Your task to perform on an android device: turn notification dots off Image 0: 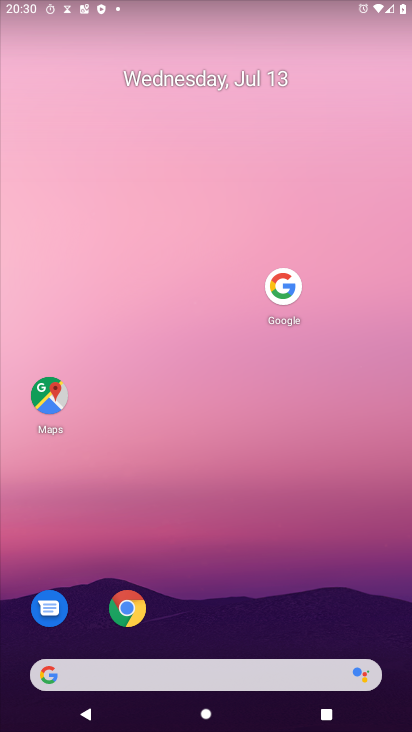
Step 0: drag from (211, 630) to (188, 33)
Your task to perform on an android device: turn notification dots off Image 1: 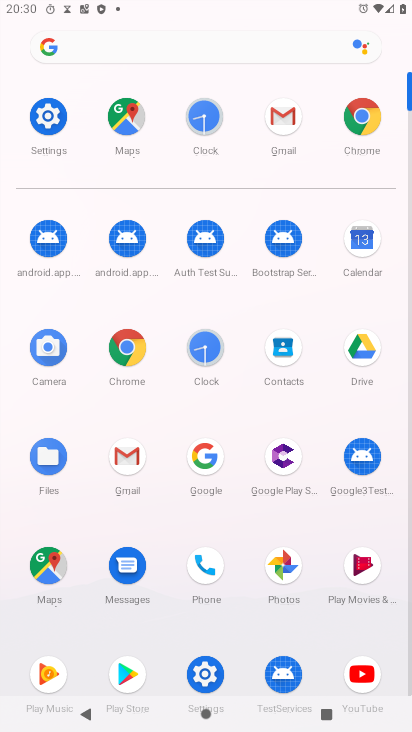
Step 1: click (60, 122)
Your task to perform on an android device: turn notification dots off Image 2: 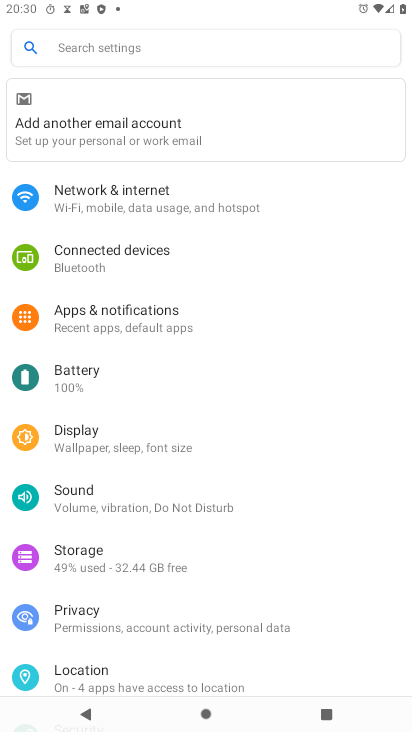
Step 2: click (141, 332)
Your task to perform on an android device: turn notification dots off Image 3: 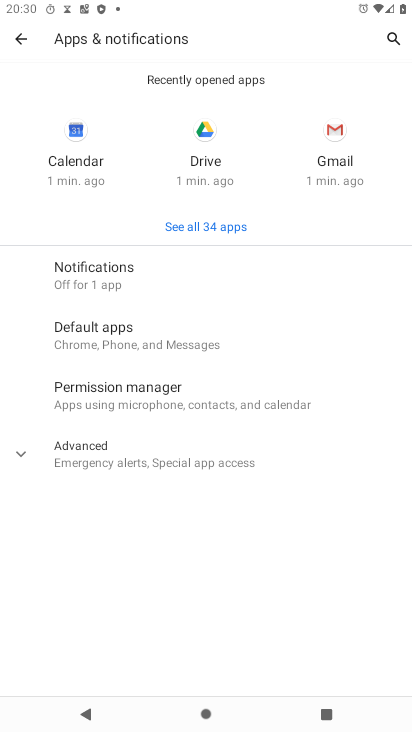
Step 3: click (117, 267)
Your task to perform on an android device: turn notification dots off Image 4: 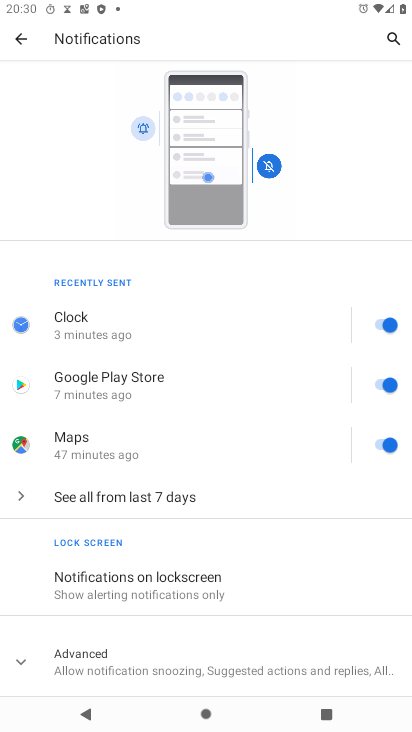
Step 4: click (182, 649)
Your task to perform on an android device: turn notification dots off Image 5: 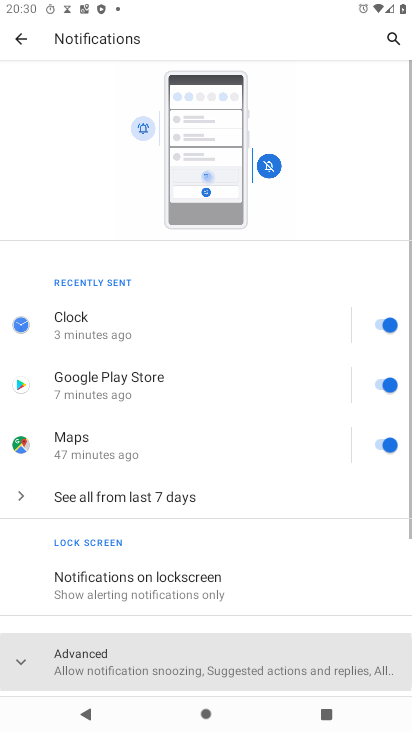
Step 5: task complete